Your task to perform on an android device: Search for Mexican restaurants on Maps Image 0: 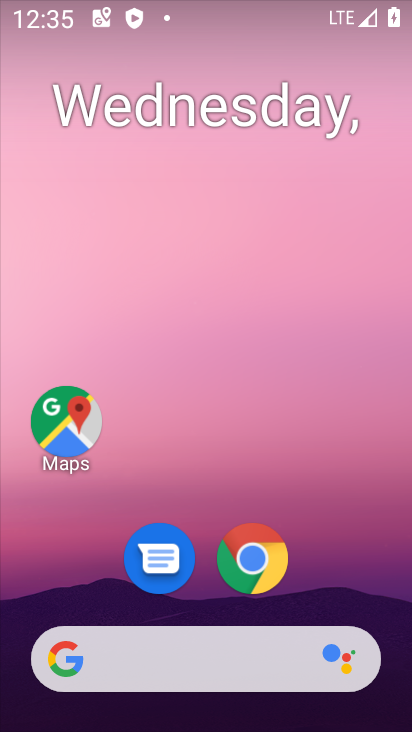
Step 0: drag from (273, 586) to (170, 261)
Your task to perform on an android device: Search for Mexican restaurants on Maps Image 1: 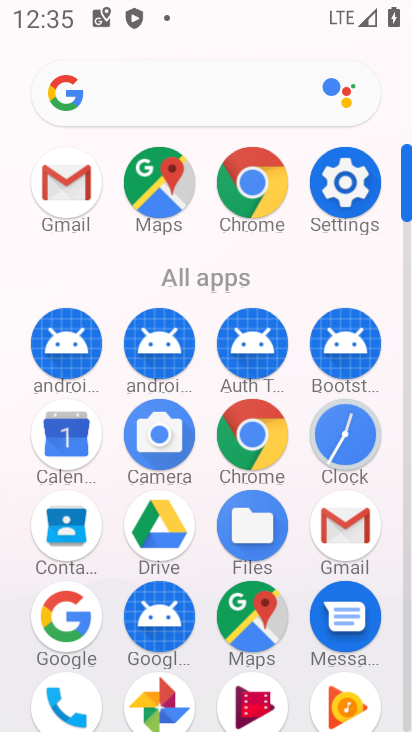
Step 1: drag from (303, 363) to (285, 199)
Your task to perform on an android device: Search for Mexican restaurants on Maps Image 2: 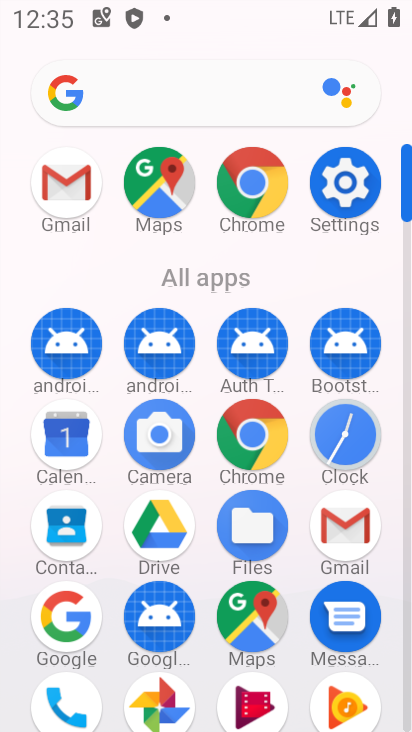
Step 2: drag from (281, 482) to (281, 254)
Your task to perform on an android device: Search for Mexican restaurants on Maps Image 3: 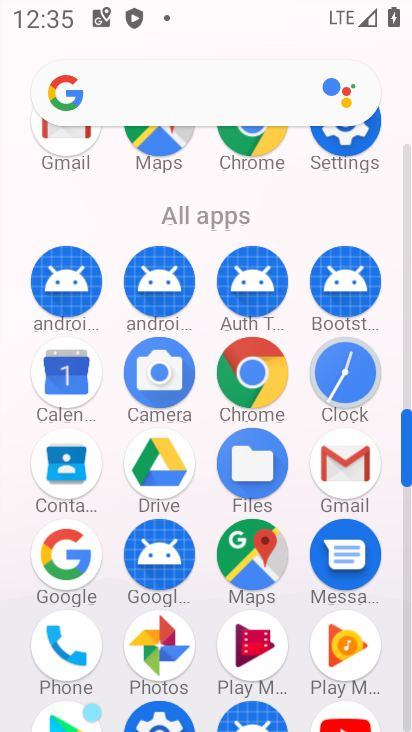
Step 3: click (248, 550)
Your task to perform on an android device: Search for Mexican restaurants on Maps Image 4: 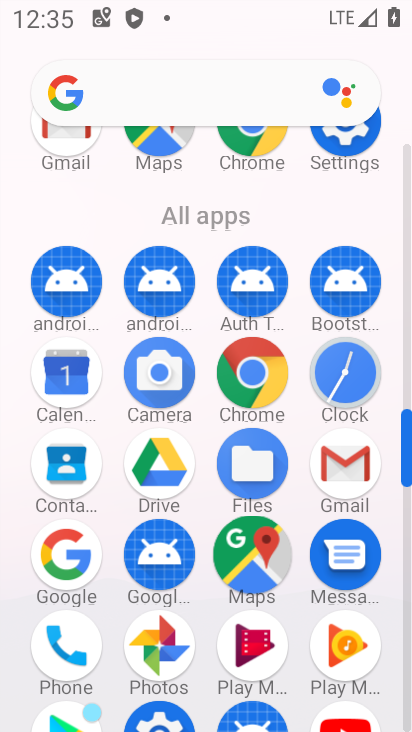
Step 4: click (241, 557)
Your task to perform on an android device: Search for Mexican restaurants on Maps Image 5: 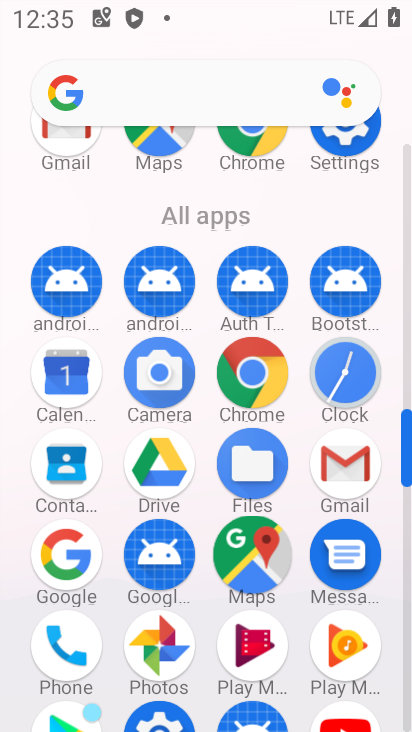
Step 5: click (241, 557)
Your task to perform on an android device: Search for Mexican restaurants on Maps Image 6: 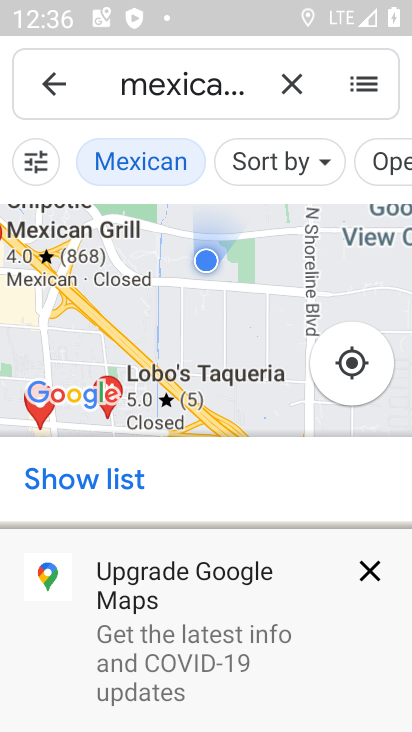
Step 6: click (203, 83)
Your task to perform on an android device: Search for Mexican restaurants on Maps Image 7: 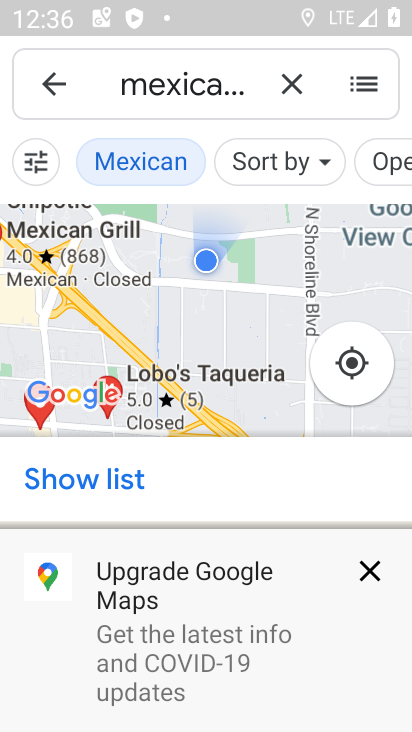
Step 7: click (189, 95)
Your task to perform on an android device: Search for Mexican restaurants on Maps Image 8: 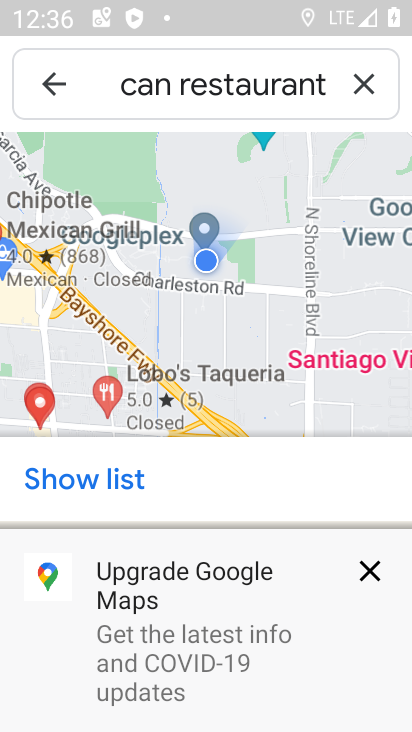
Step 8: click (187, 93)
Your task to perform on an android device: Search for Mexican restaurants on Maps Image 9: 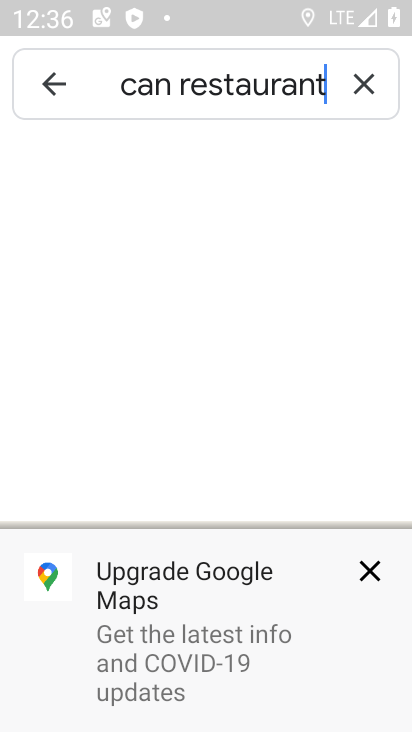
Step 9: click (187, 93)
Your task to perform on an android device: Search for Mexican restaurants on Maps Image 10: 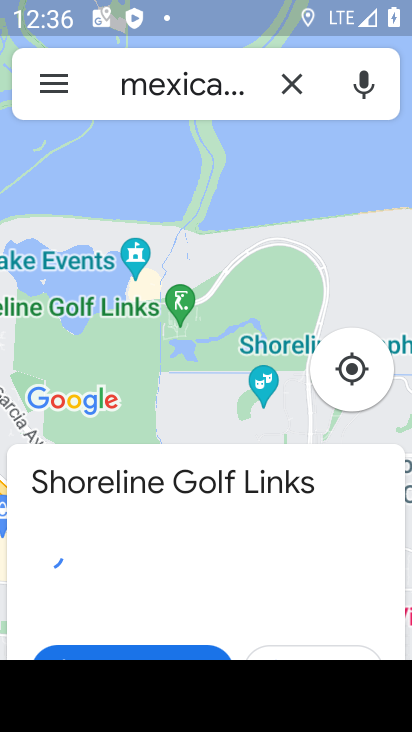
Step 10: task complete